Your task to perform on an android device: star an email in the gmail app Image 0: 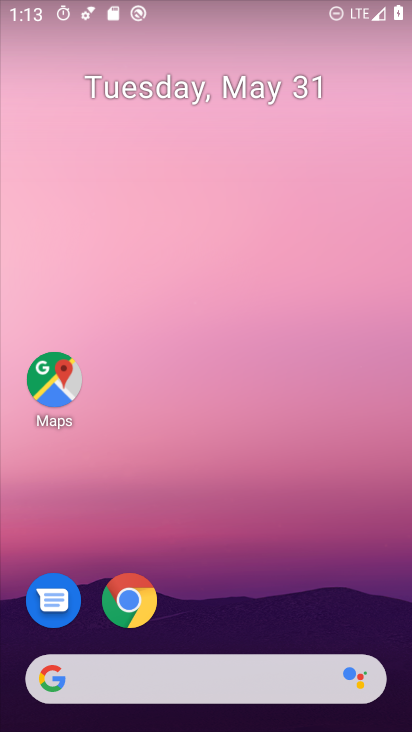
Step 0: drag from (218, 726) to (204, 134)
Your task to perform on an android device: star an email in the gmail app Image 1: 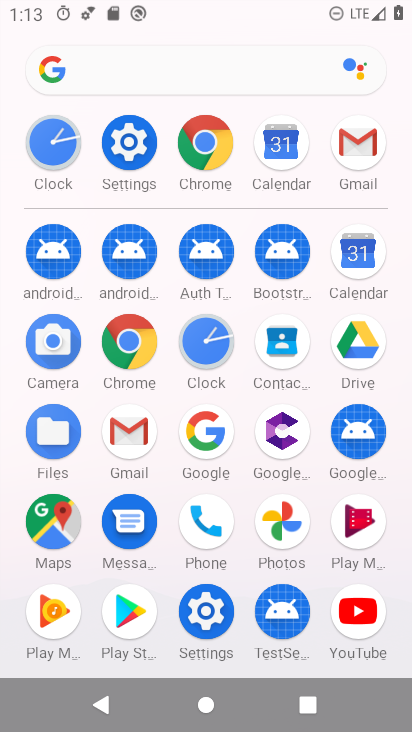
Step 1: click (135, 427)
Your task to perform on an android device: star an email in the gmail app Image 2: 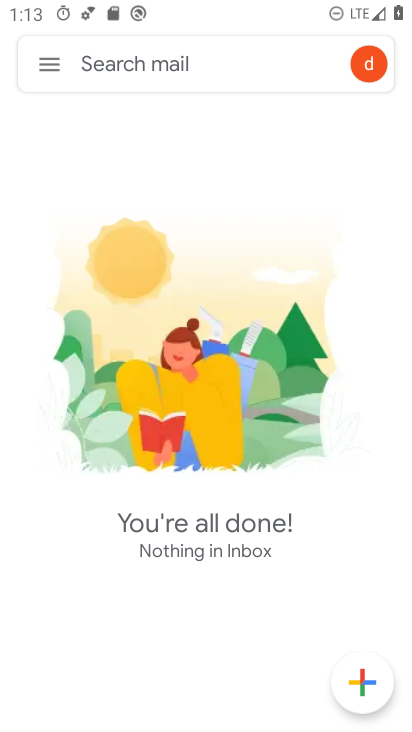
Step 2: task complete